Your task to perform on an android device: Go to privacy settings Image 0: 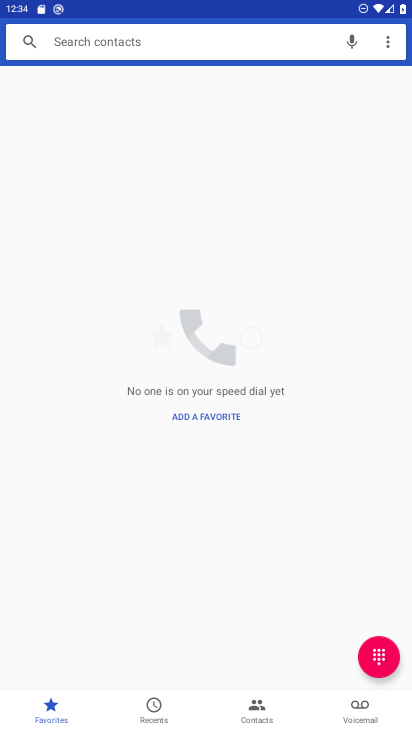
Step 0: drag from (236, 624) to (264, 603)
Your task to perform on an android device: Go to privacy settings Image 1: 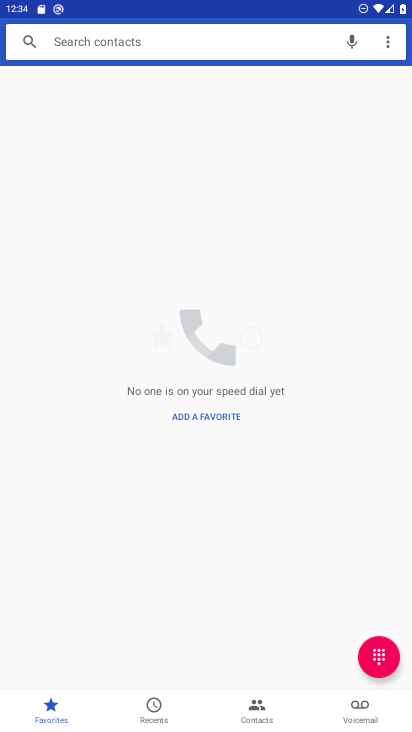
Step 1: press home button
Your task to perform on an android device: Go to privacy settings Image 2: 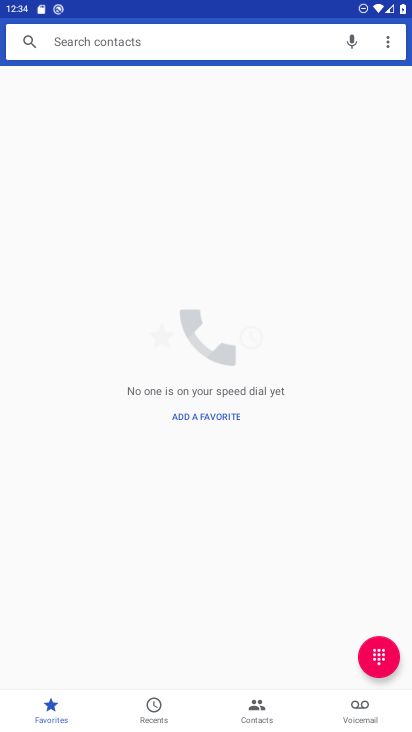
Step 2: press home button
Your task to perform on an android device: Go to privacy settings Image 3: 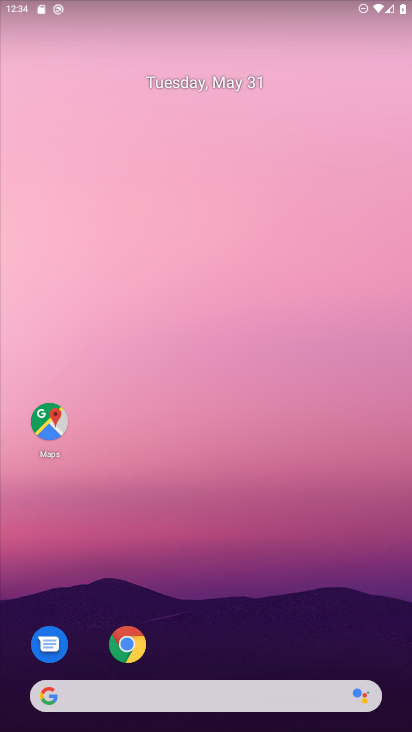
Step 3: drag from (190, 672) to (261, 245)
Your task to perform on an android device: Go to privacy settings Image 4: 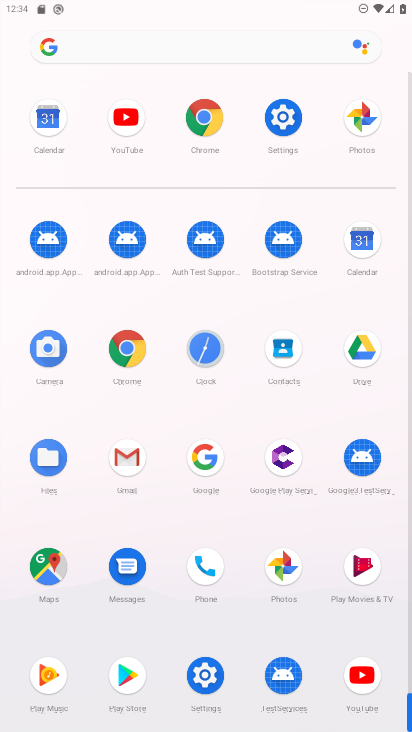
Step 4: click (281, 133)
Your task to perform on an android device: Go to privacy settings Image 5: 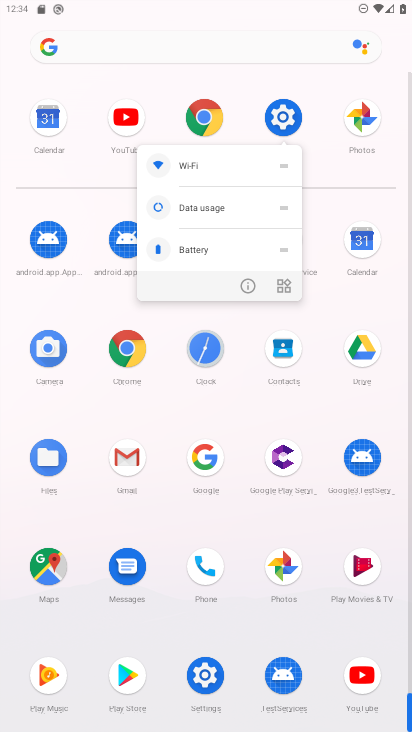
Step 5: click (249, 300)
Your task to perform on an android device: Go to privacy settings Image 6: 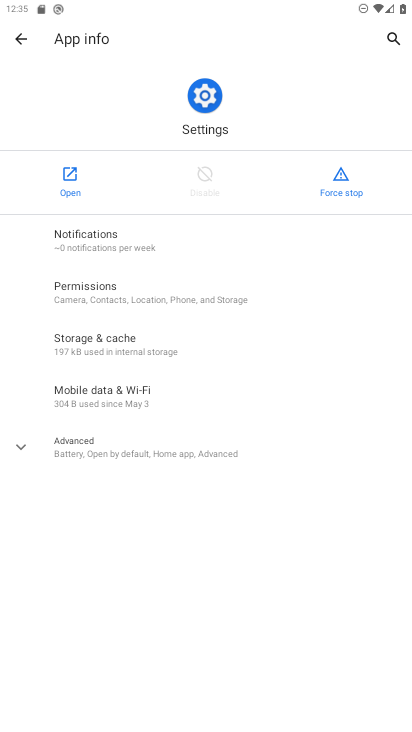
Step 6: click (74, 184)
Your task to perform on an android device: Go to privacy settings Image 7: 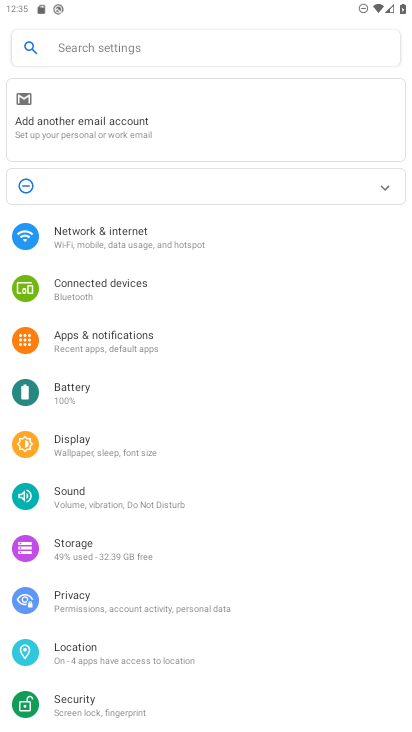
Step 7: drag from (138, 486) to (213, 249)
Your task to perform on an android device: Go to privacy settings Image 8: 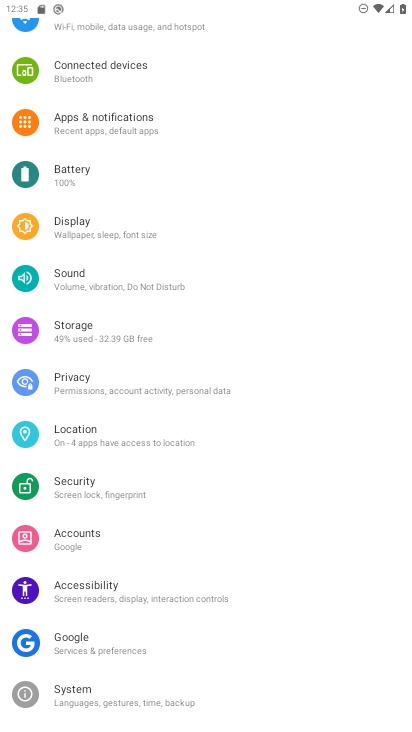
Step 8: click (75, 490)
Your task to perform on an android device: Go to privacy settings Image 9: 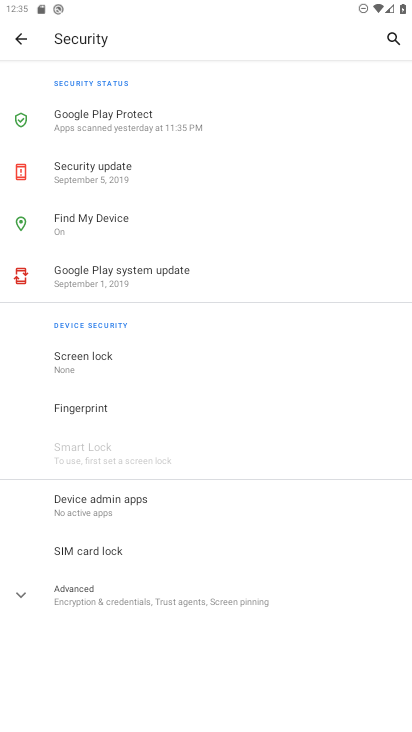
Step 9: press back button
Your task to perform on an android device: Go to privacy settings Image 10: 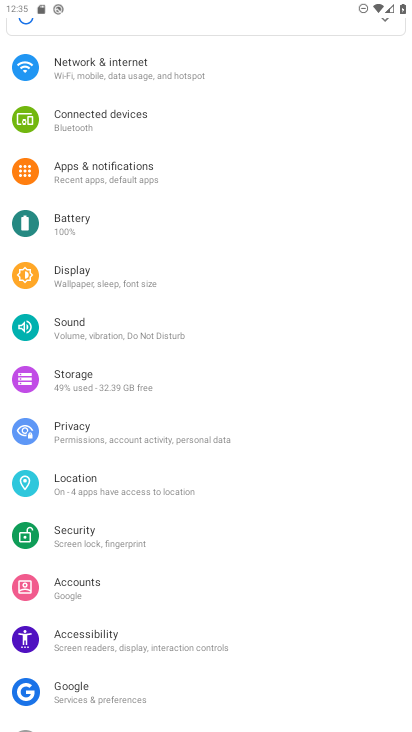
Step 10: click (88, 436)
Your task to perform on an android device: Go to privacy settings Image 11: 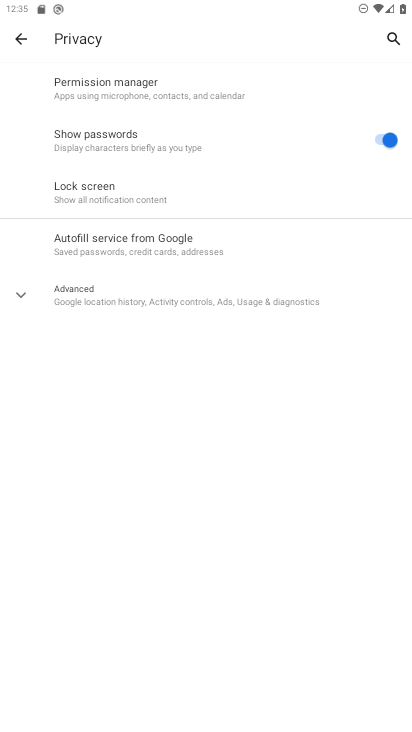
Step 11: task complete